Your task to perform on an android device: turn off sleep mode Image 0: 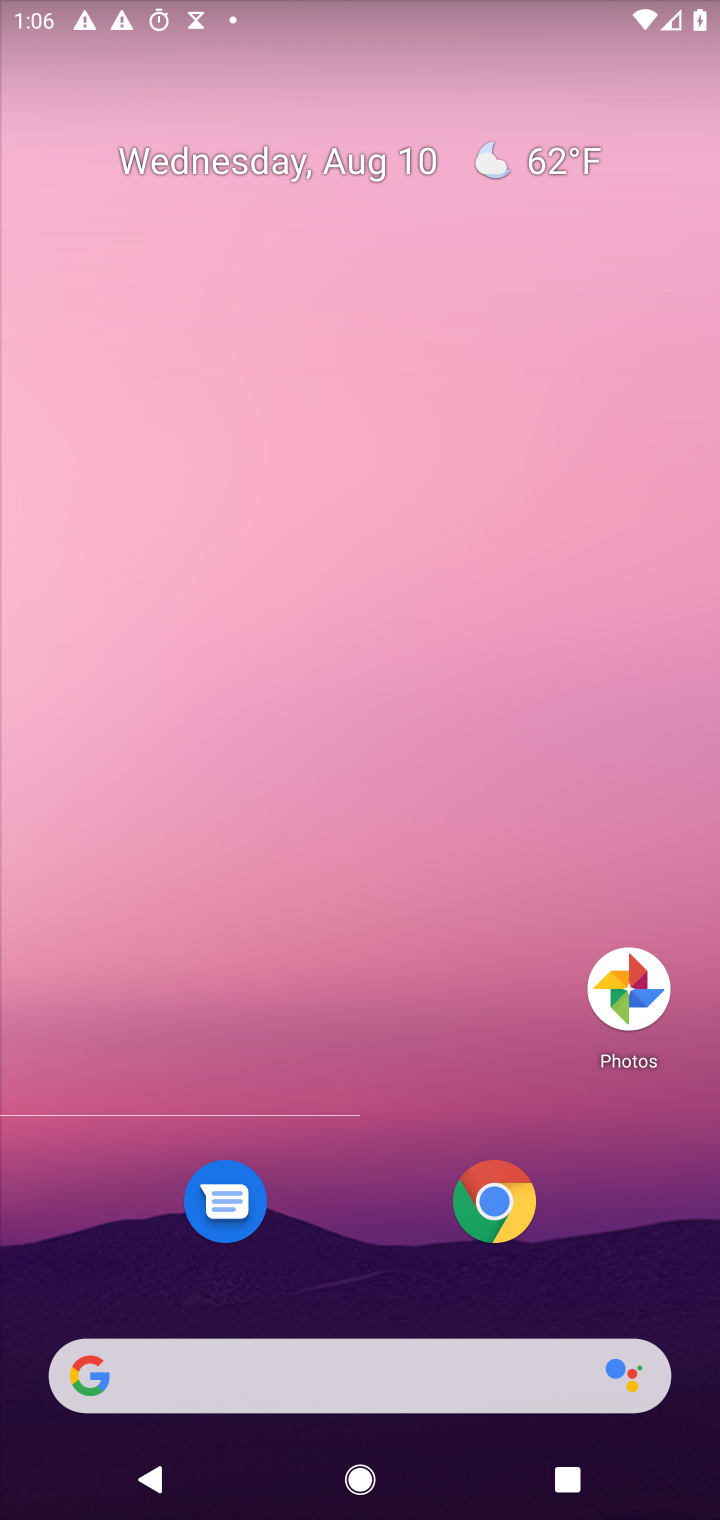
Step 0: drag from (356, 901) to (436, 82)
Your task to perform on an android device: turn off sleep mode Image 1: 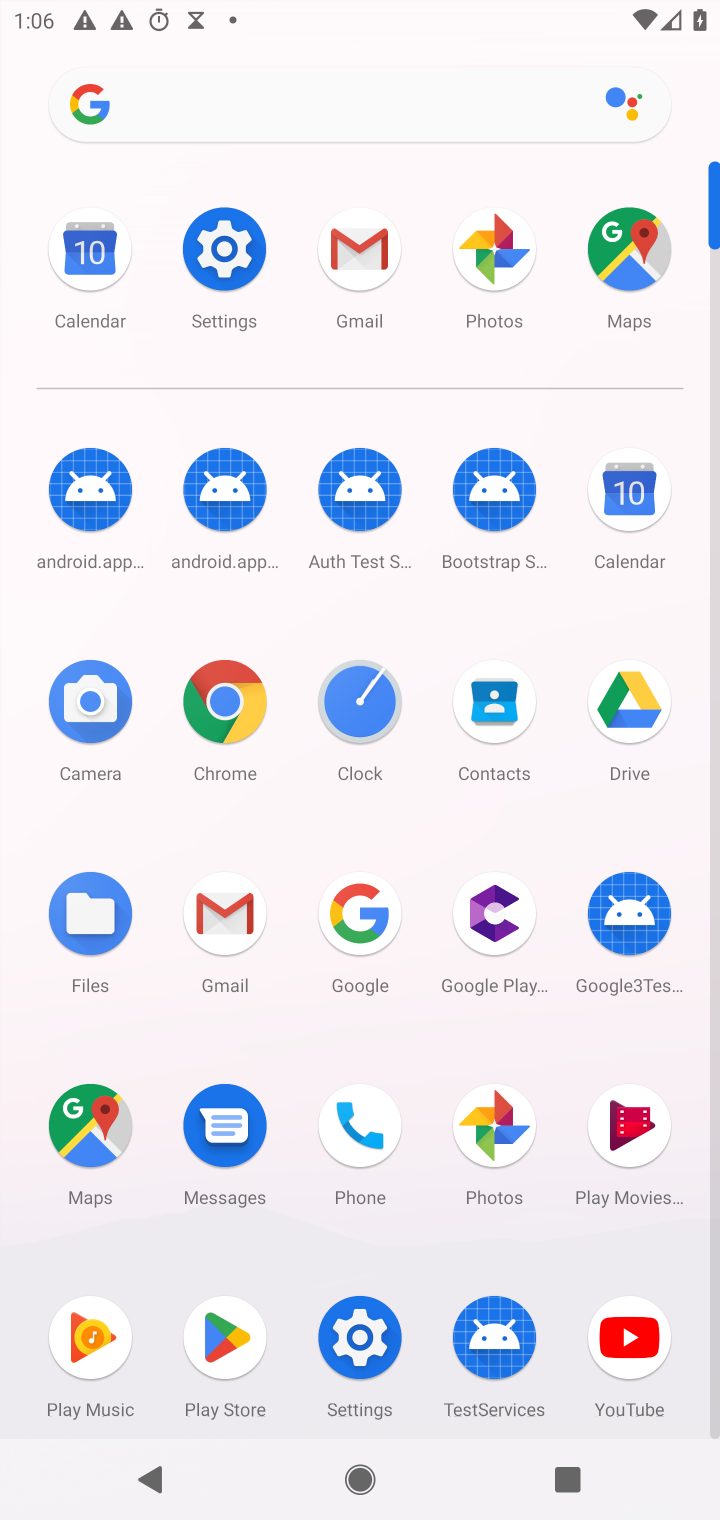
Step 1: click (232, 252)
Your task to perform on an android device: turn off sleep mode Image 2: 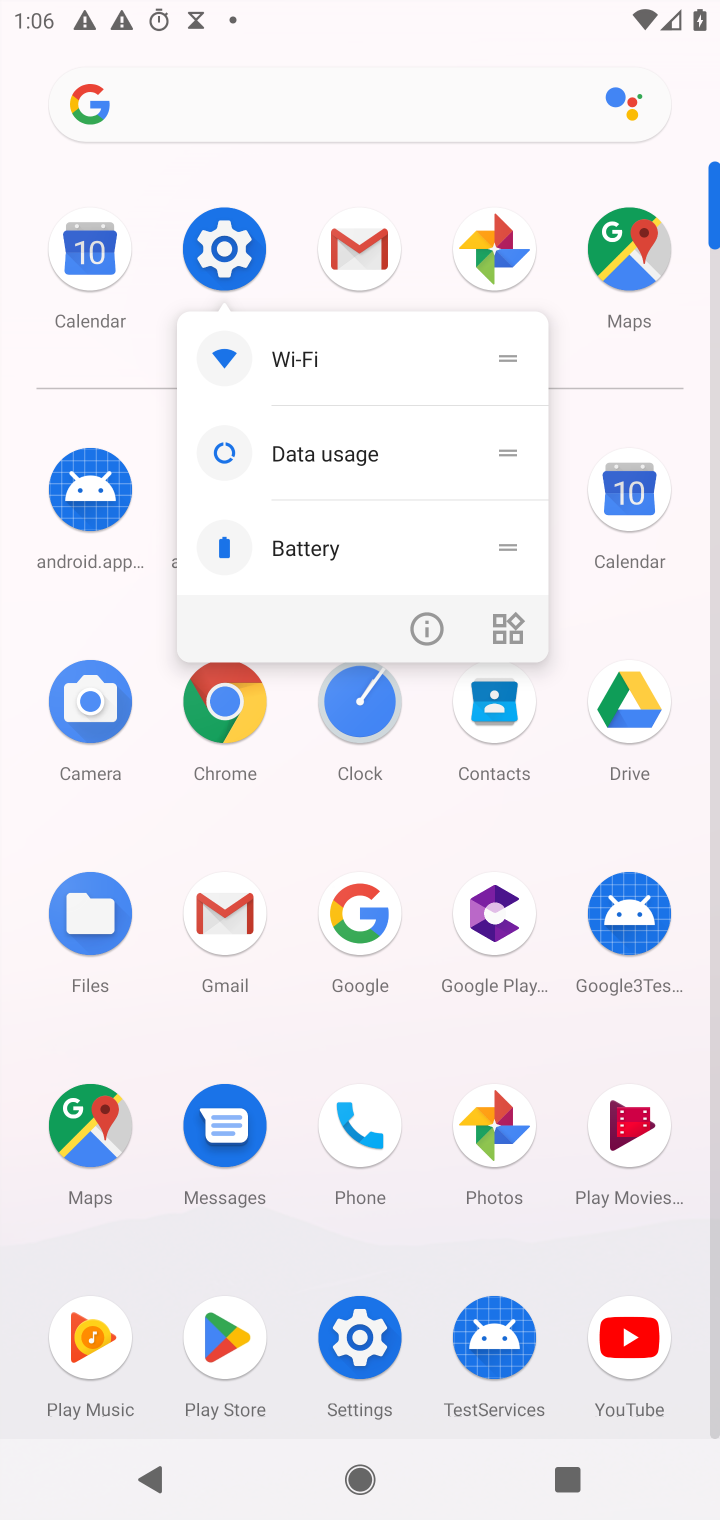
Step 2: click (223, 244)
Your task to perform on an android device: turn off sleep mode Image 3: 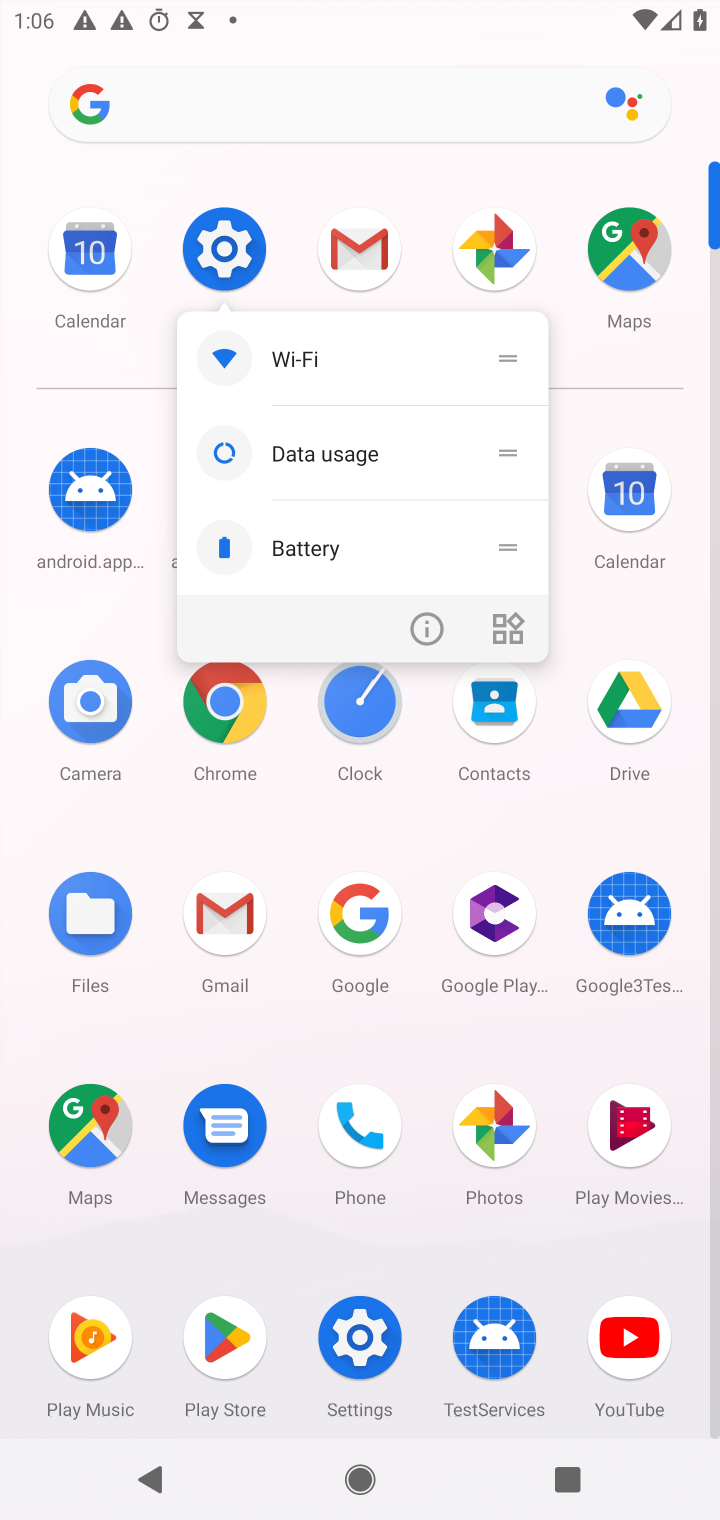
Step 3: click (219, 254)
Your task to perform on an android device: turn off sleep mode Image 4: 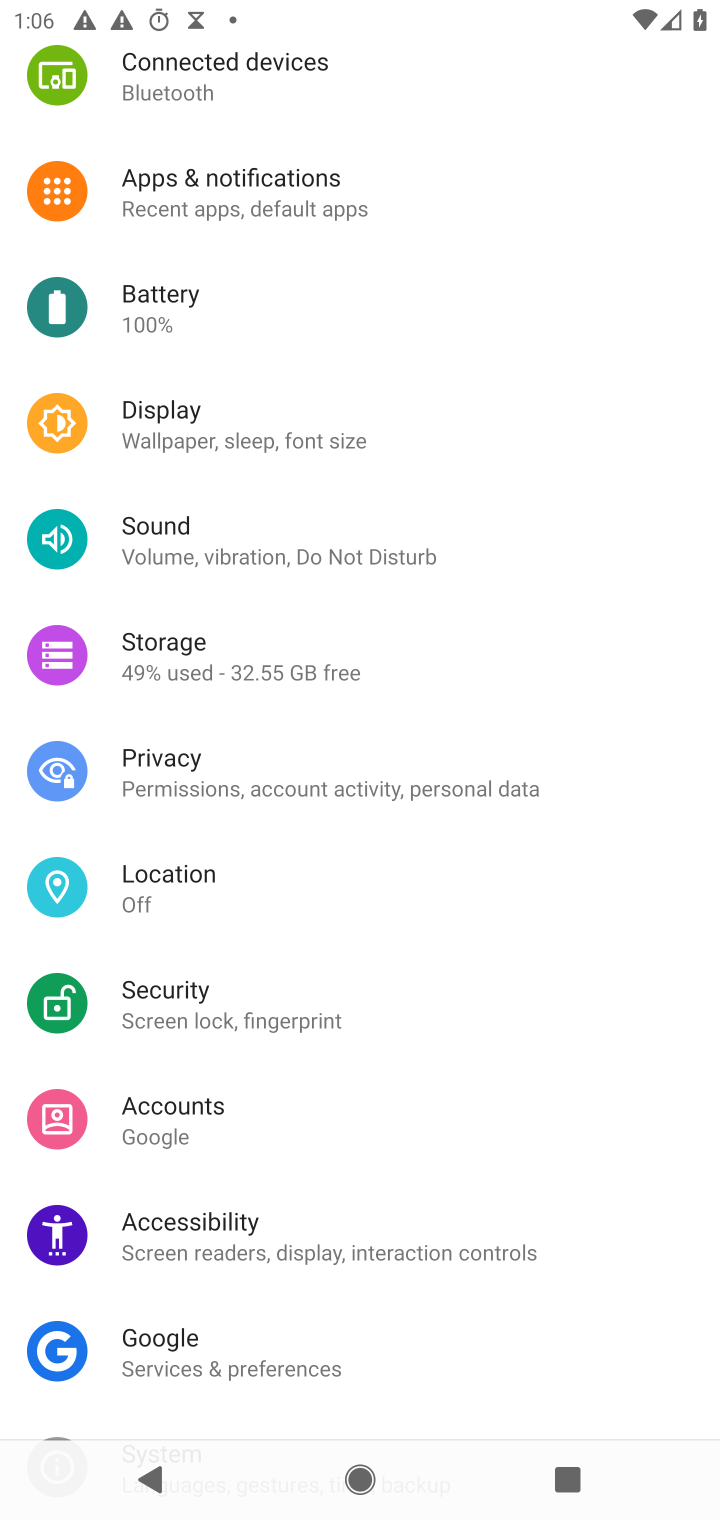
Step 4: click (165, 427)
Your task to perform on an android device: turn off sleep mode Image 5: 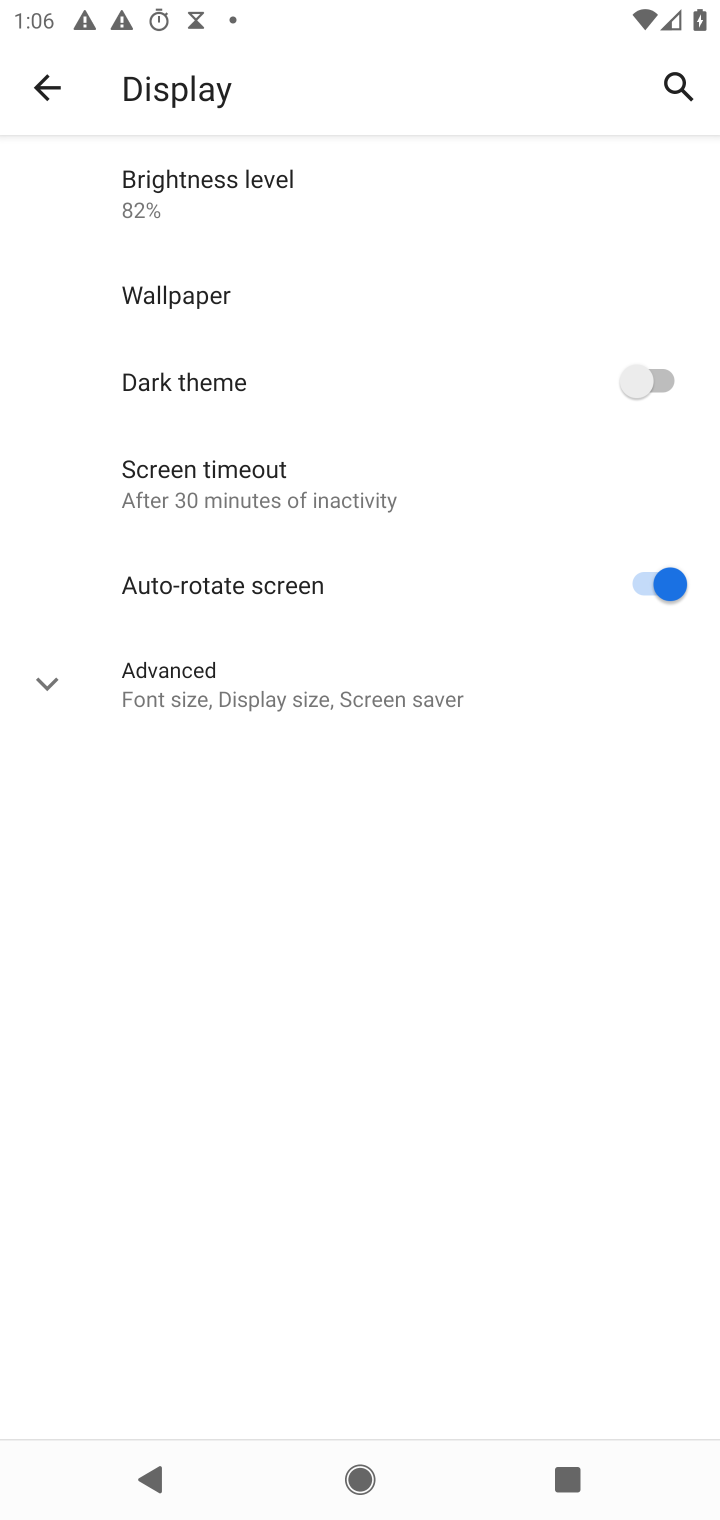
Step 5: click (48, 680)
Your task to perform on an android device: turn off sleep mode Image 6: 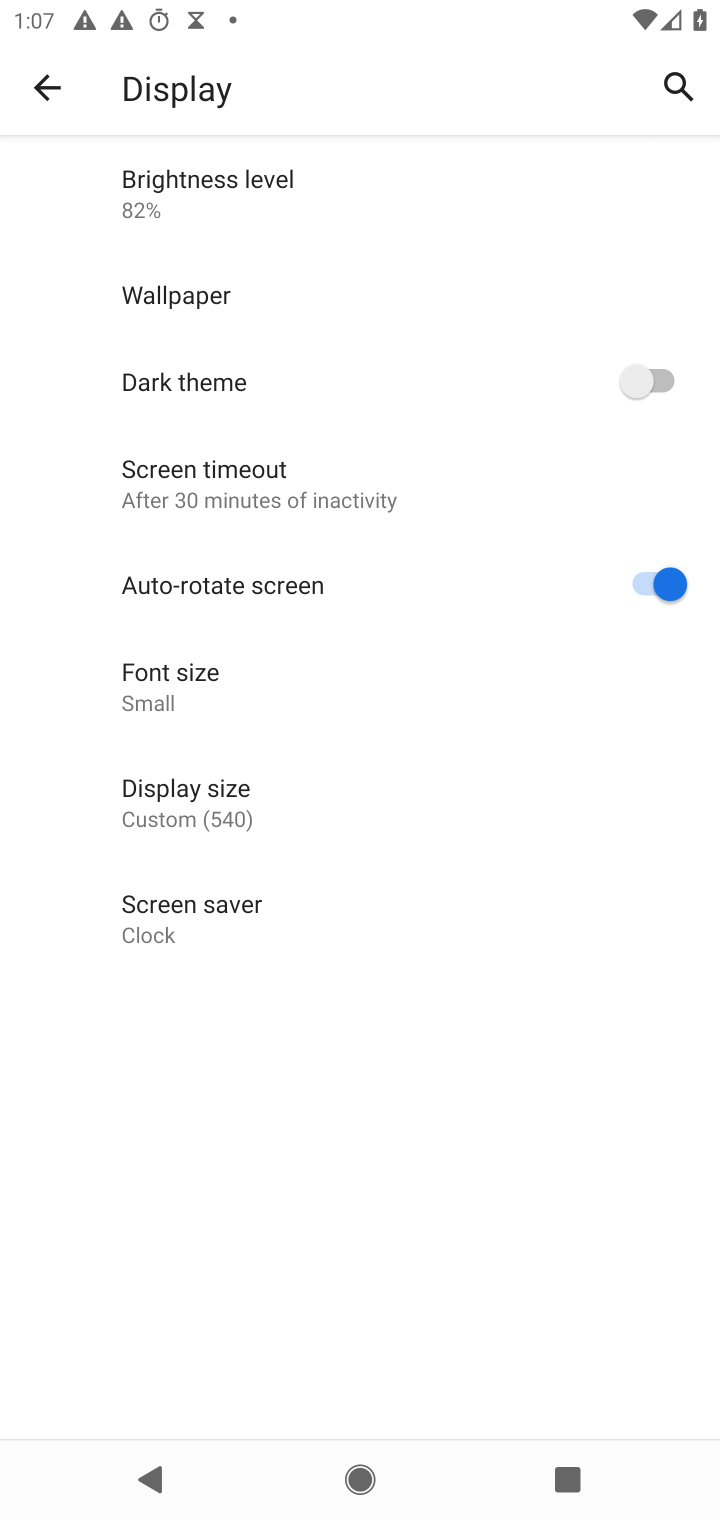
Step 6: task complete